Your task to perform on an android device: Open calendar and show me the third week of next month Image 0: 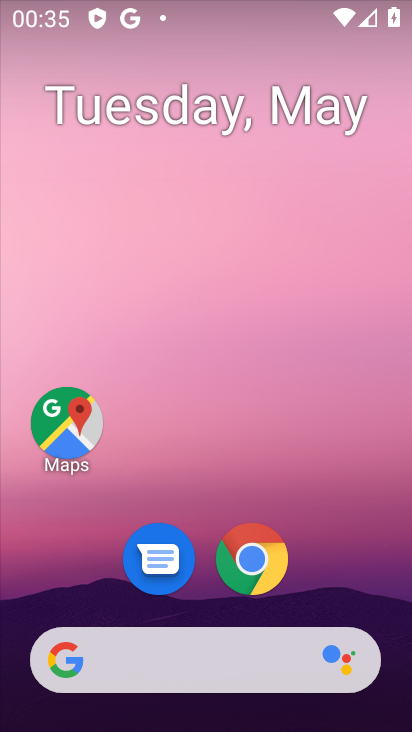
Step 0: drag from (302, 528) to (290, 237)
Your task to perform on an android device: Open calendar and show me the third week of next month Image 1: 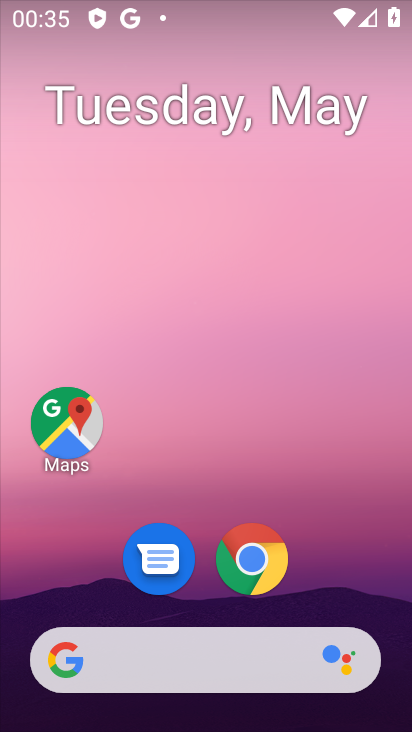
Step 1: drag from (330, 652) to (295, 265)
Your task to perform on an android device: Open calendar and show me the third week of next month Image 2: 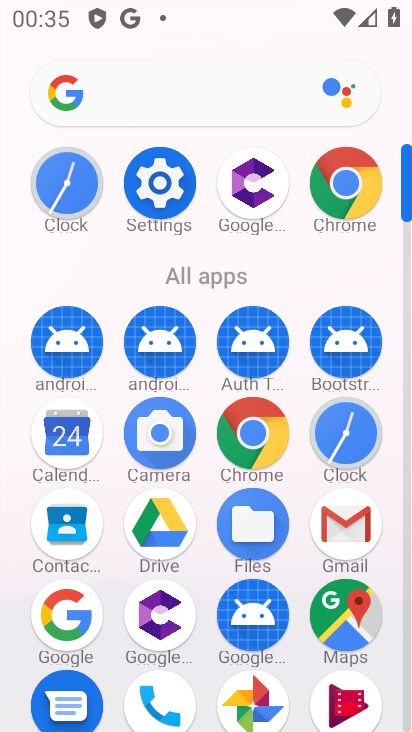
Step 2: click (52, 434)
Your task to perform on an android device: Open calendar and show me the third week of next month Image 3: 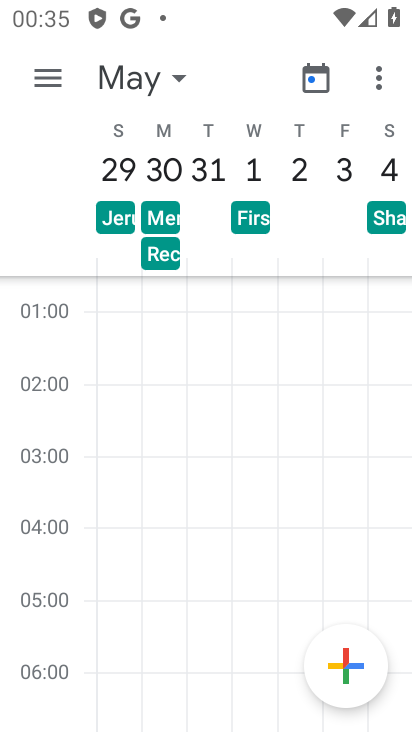
Step 3: click (314, 172)
Your task to perform on an android device: Open calendar and show me the third week of next month Image 4: 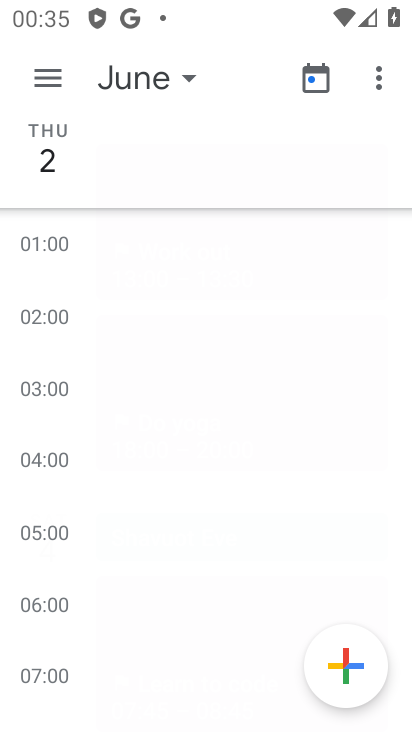
Step 4: click (314, 172)
Your task to perform on an android device: Open calendar and show me the third week of next month Image 5: 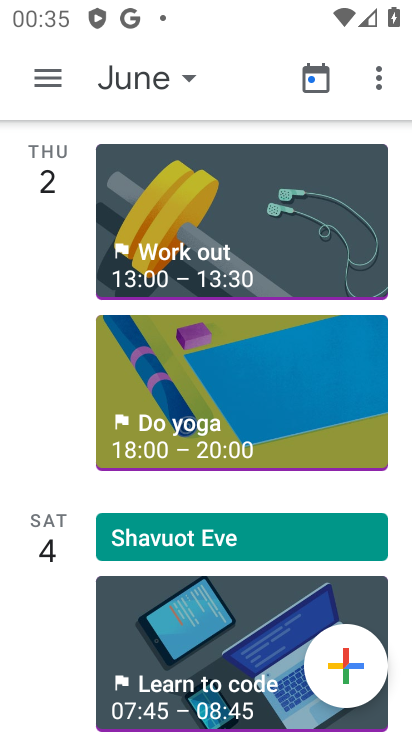
Step 5: drag from (191, 568) to (142, 90)
Your task to perform on an android device: Open calendar and show me the third week of next month Image 6: 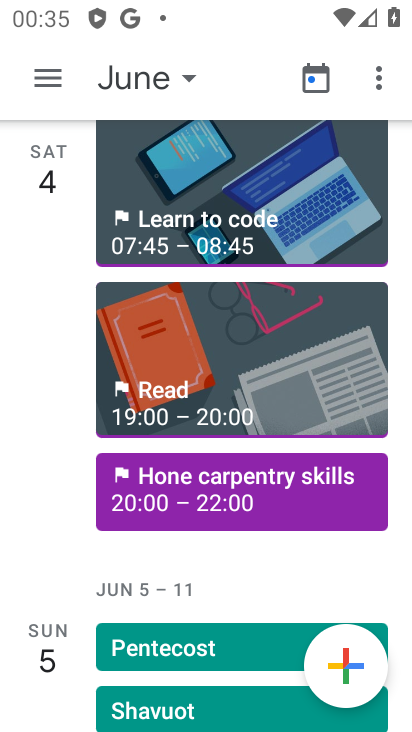
Step 6: click (56, 77)
Your task to perform on an android device: Open calendar and show me the third week of next month Image 7: 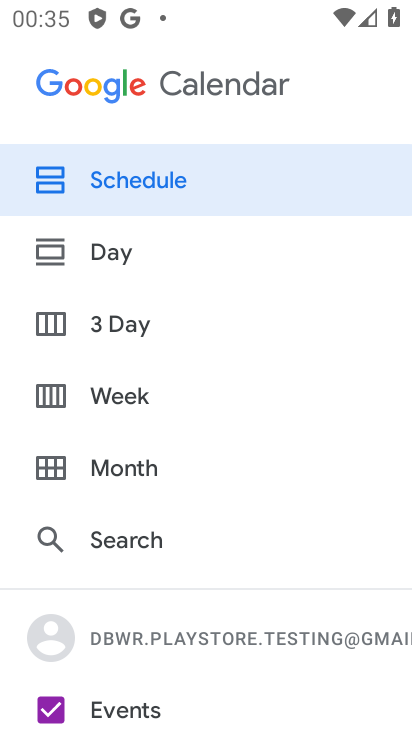
Step 7: click (204, 473)
Your task to perform on an android device: Open calendar and show me the third week of next month Image 8: 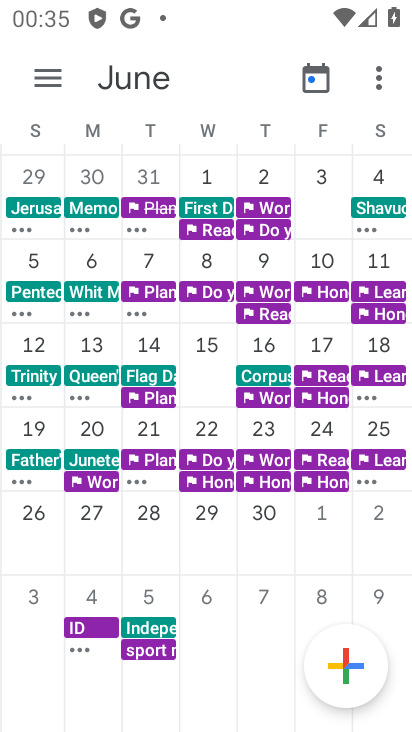
Step 8: task complete